Your task to perform on an android device: check data usage Image 0: 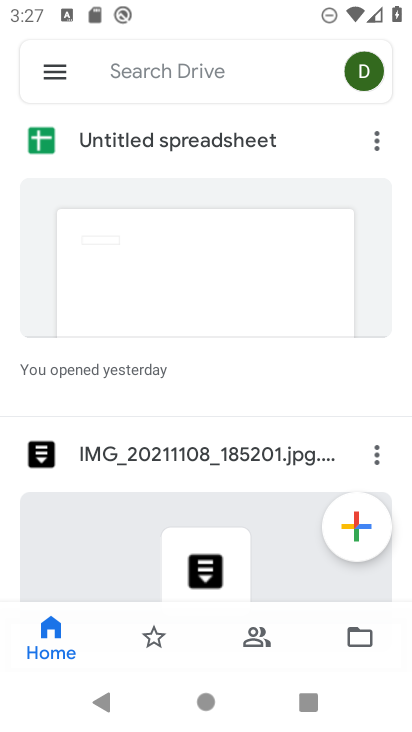
Step 0: press home button
Your task to perform on an android device: check data usage Image 1: 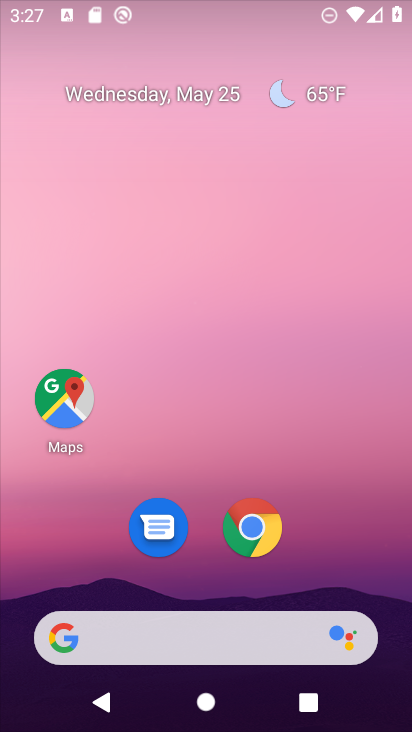
Step 1: drag from (216, 653) to (252, 1)
Your task to perform on an android device: check data usage Image 2: 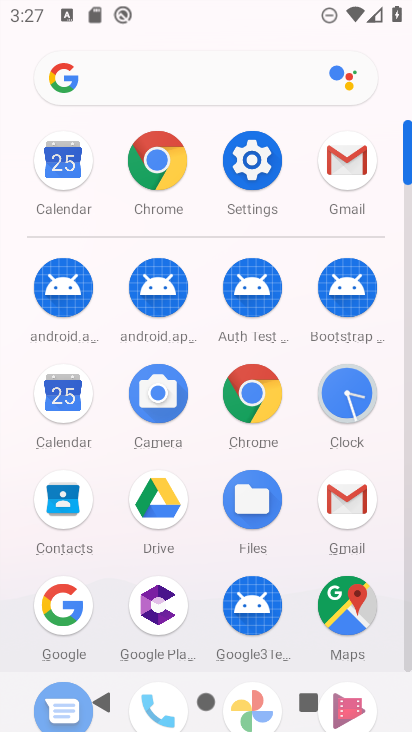
Step 2: click (256, 163)
Your task to perform on an android device: check data usage Image 3: 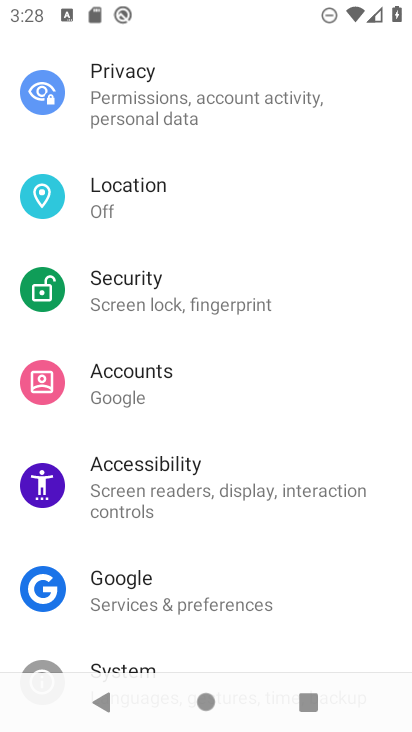
Step 3: drag from (252, 141) to (224, 717)
Your task to perform on an android device: check data usage Image 4: 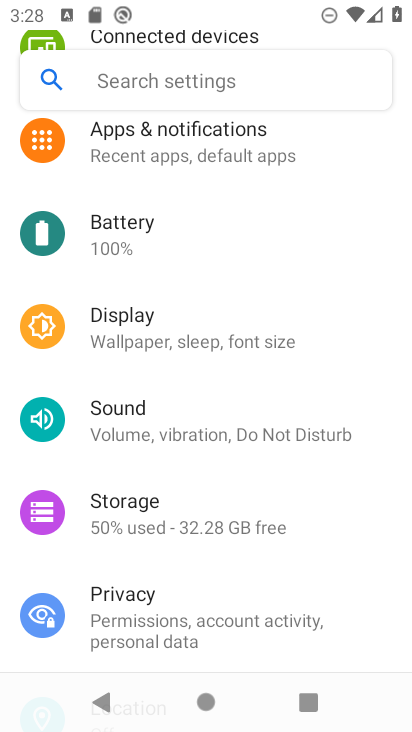
Step 4: drag from (261, 177) to (225, 688)
Your task to perform on an android device: check data usage Image 5: 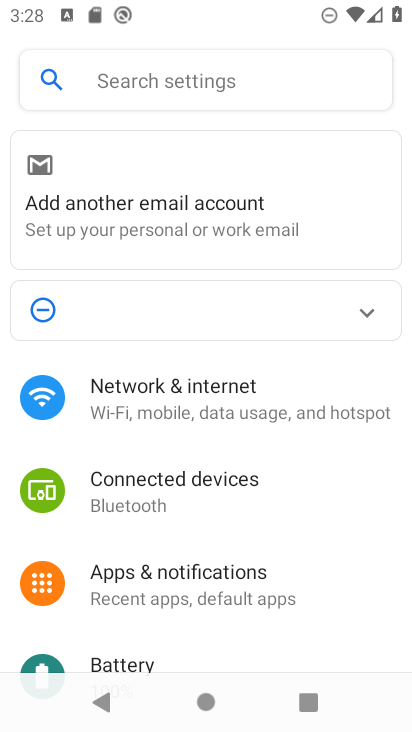
Step 5: click (219, 394)
Your task to perform on an android device: check data usage Image 6: 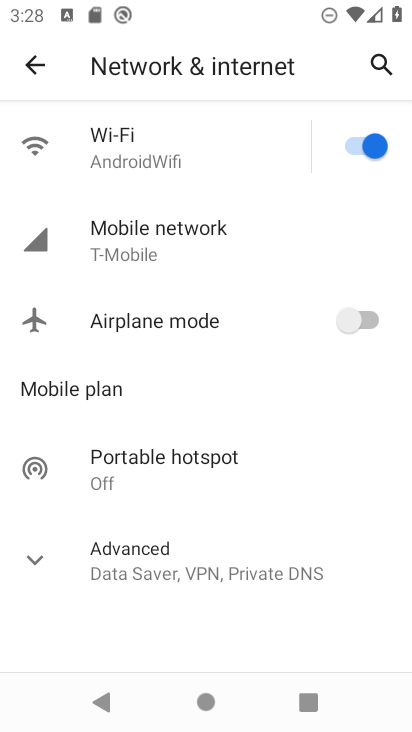
Step 6: click (195, 238)
Your task to perform on an android device: check data usage Image 7: 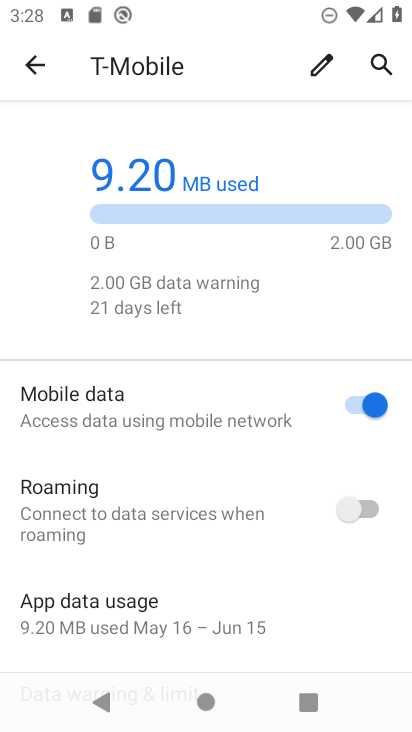
Step 7: task complete